Your task to perform on an android device: Go to settings Image 0: 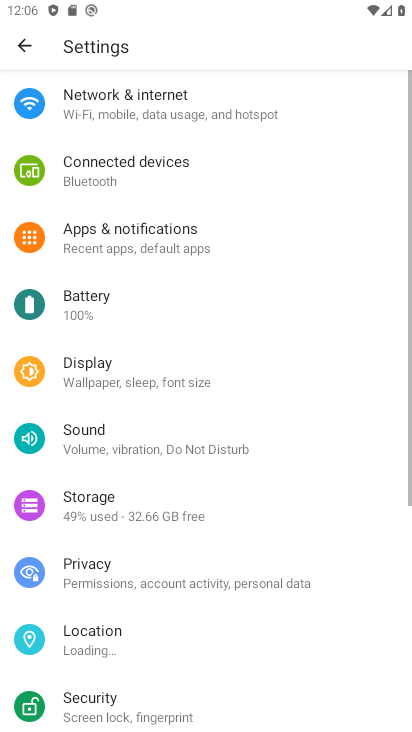
Step 0: drag from (195, 514) to (188, 158)
Your task to perform on an android device: Go to settings Image 1: 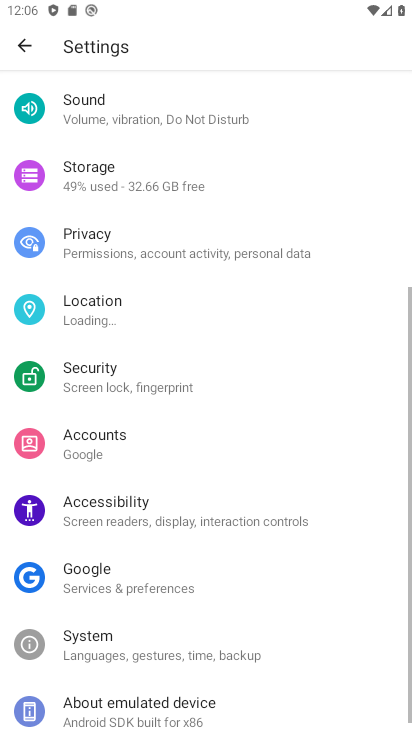
Step 1: task complete